Your task to perform on an android device: Toggle the flashlight Image 0: 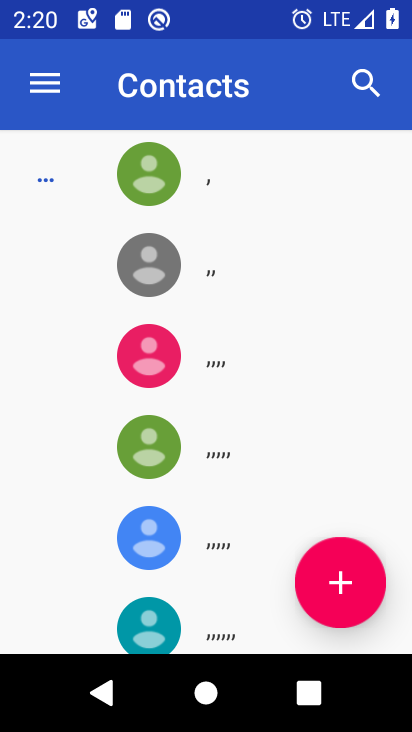
Step 0: press home button
Your task to perform on an android device: Toggle the flashlight Image 1: 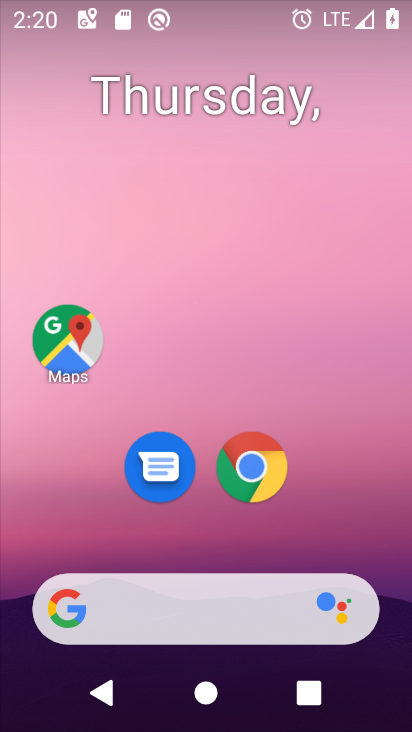
Step 1: drag from (237, 556) to (290, 16)
Your task to perform on an android device: Toggle the flashlight Image 2: 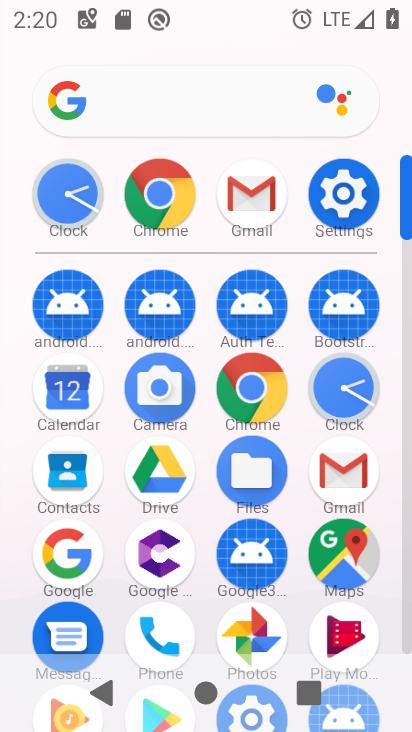
Step 2: click (347, 218)
Your task to perform on an android device: Toggle the flashlight Image 3: 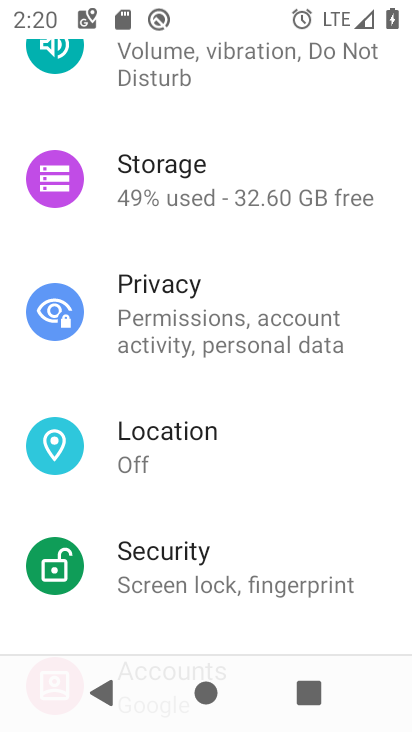
Step 3: drag from (140, 61) to (169, 699)
Your task to perform on an android device: Toggle the flashlight Image 4: 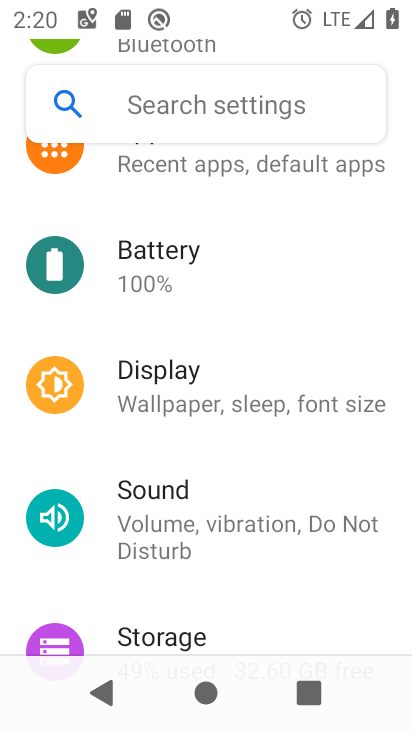
Step 4: click (190, 133)
Your task to perform on an android device: Toggle the flashlight Image 5: 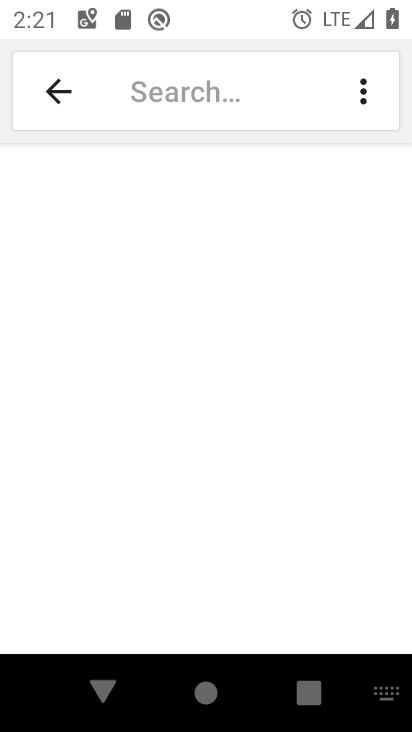
Step 5: type "flashlight"
Your task to perform on an android device: Toggle the flashlight Image 6: 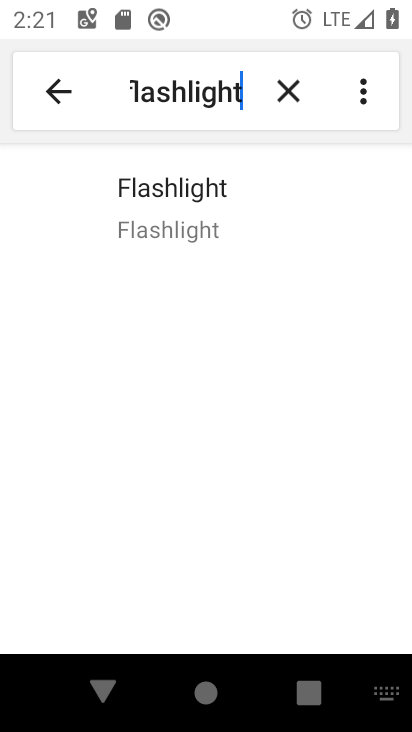
Step 6: task complete